Your task to perform on an android device: turn off translation in the chrome app Image 0: 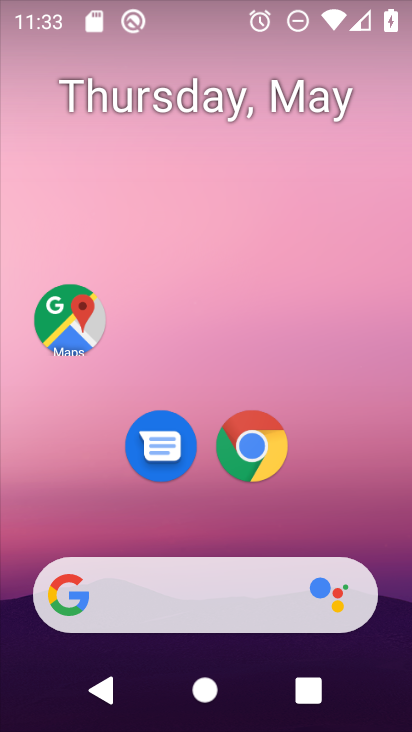
Step 0: drag from (267, 649) to (291, 179)
Your task to perform on an android device: turn off translation in the chrome app Image 1: 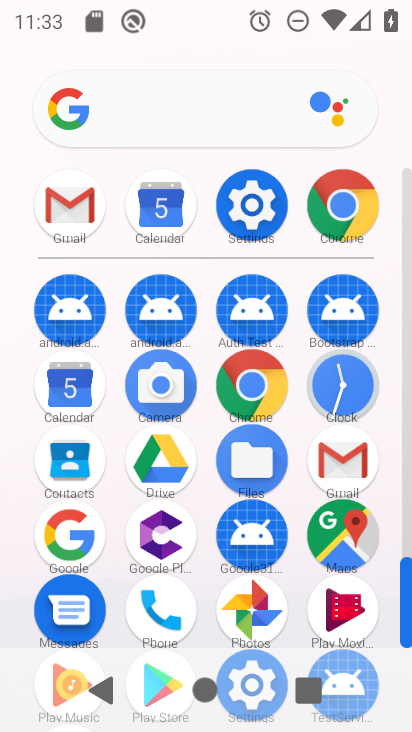
Step 1: click (327, 220)
Your task to perform on an android device: turn off translation in the chrome app Image 2: 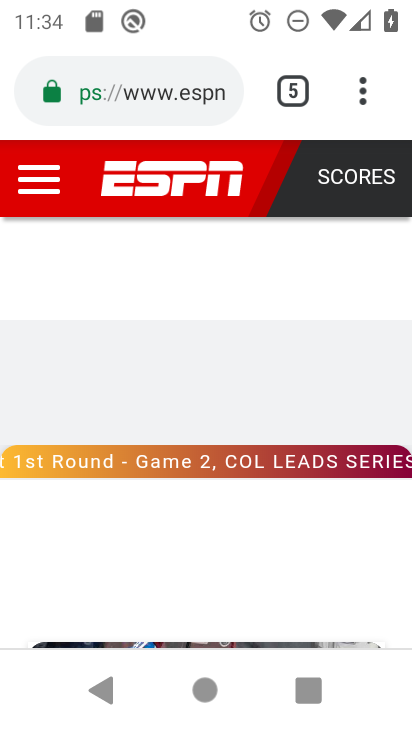
Step 2: click (359, 118)
Your task to perform on an android device: turn off translation in the chrome app Image 3: 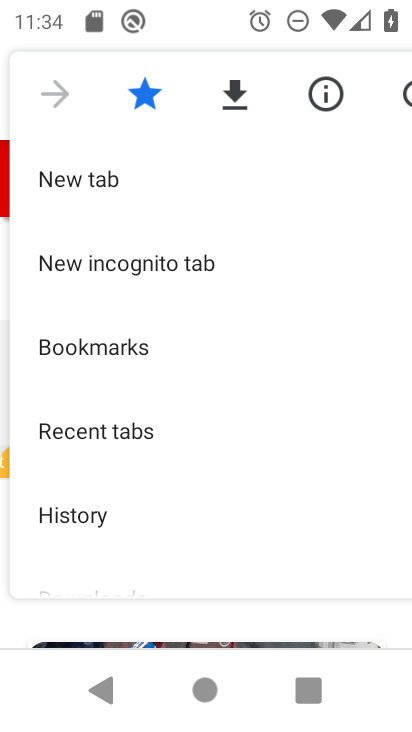
Step 3: drag from (154, 560) to (250, 343)
Your task to perform on an android device: turn off translation in the chrome app Image 4: 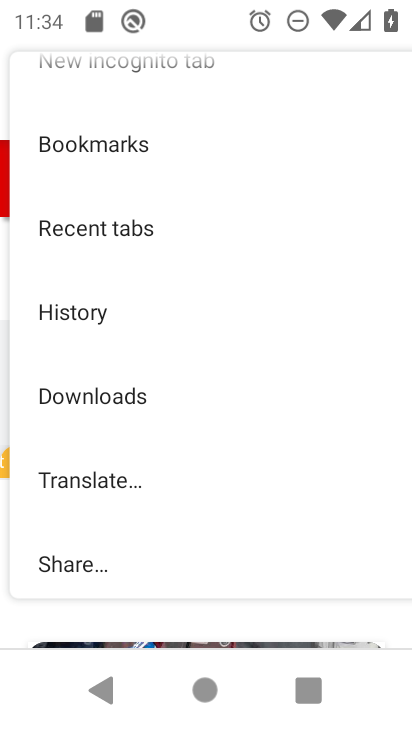
Step 4: drag from (207, 541) to (302, 296)
Your task to perform on an android device: turn off translation in the chrome app Image 5: 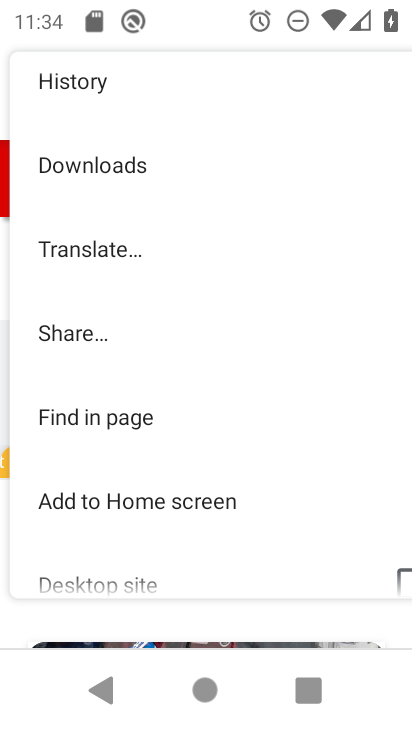
Step 5: drag from (159, 524) to (301, 274)
Your task to perform on an android device: turn off translation in the chrome app Image 6: 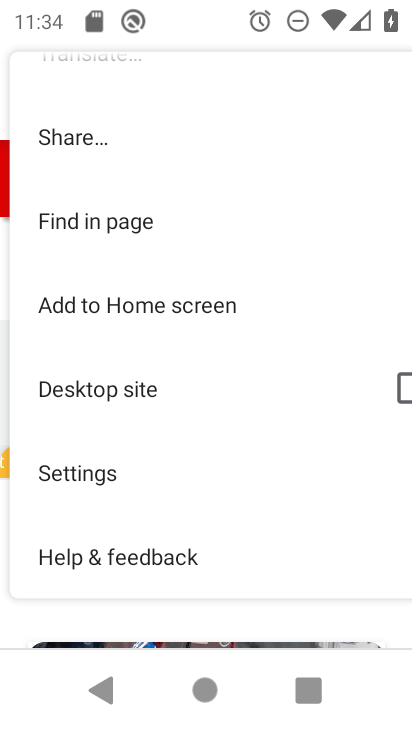
Step 6: click (145, 479)
Your task to perform on an android device: turn off translation in the chrome app Image 7: 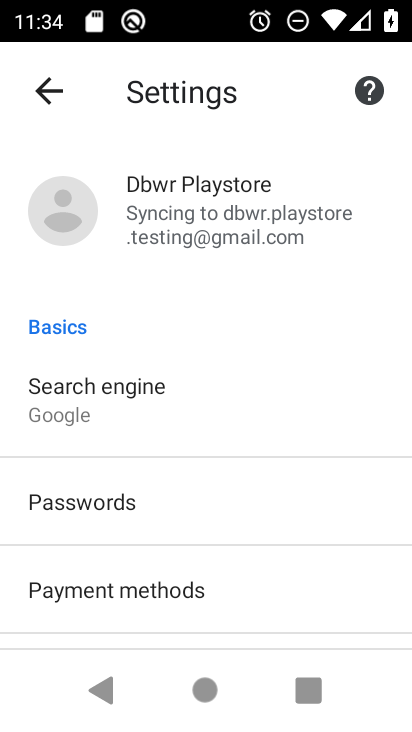
Step 7: drag from (294, 616) to (267, 357)
Your task to perform on an android device: turn off translation in the chrome app Image 8: 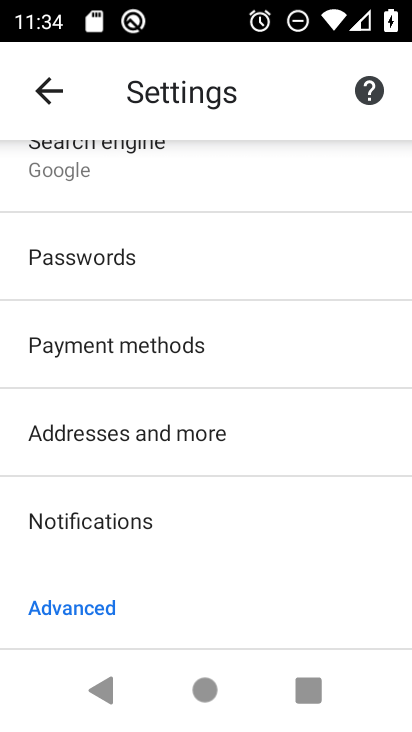
Step 8: drag from (157, 565) to (252, 280)
Your task to perform on an android device: turn off translation in the chrome app Image 9: 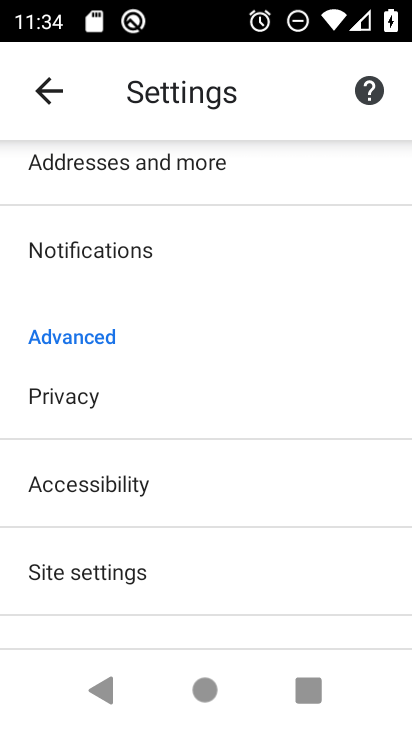
Step 9: drag from (123, 551) to (277, 343)
Your task to perform on an android device: turn off translation in the chrome app Image 10: 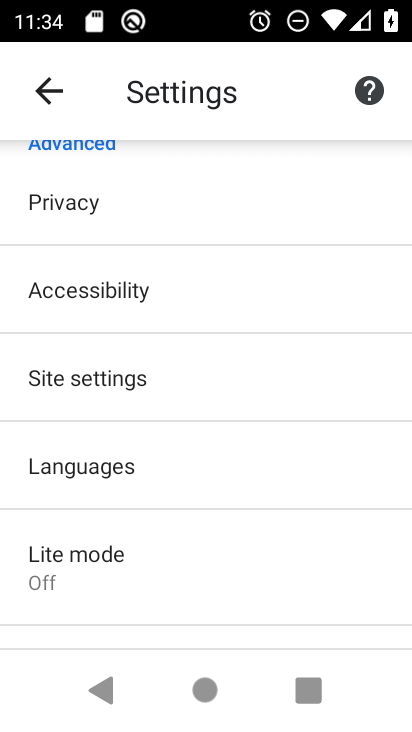
Step 10: drag from (176, 521) to (202, 365)
Your task to perform on an android device: turn off translation in the chrome app Image 11: 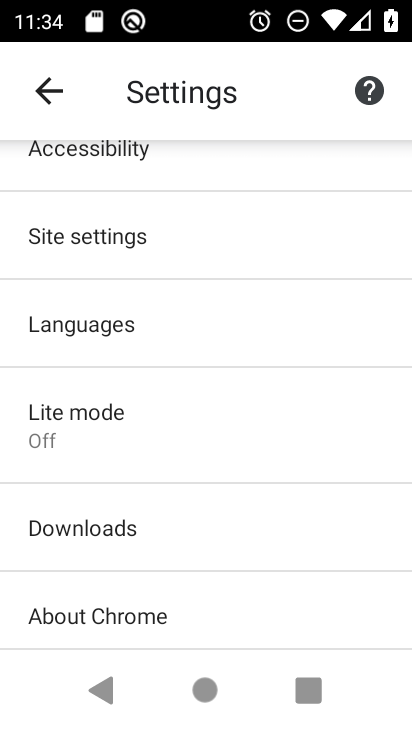
Step 11: click (167, 328)
Your task to perform on an android device: turn off translation in the chrome app Image 12: 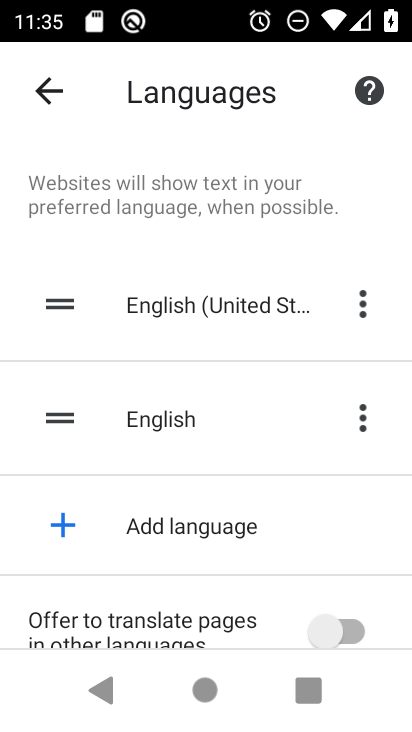
Step 12: click (357, 624)
Your task to perform on an android device: turn off translation in the chrome app Image 13: 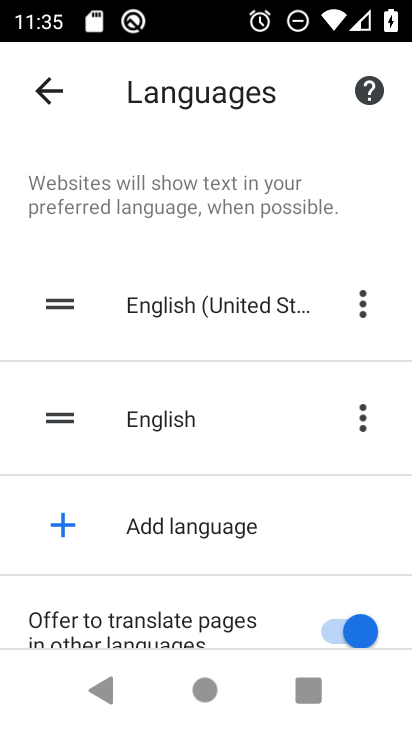
Step 13: click (340, 628)
Your task to perform on an android device: turn off translation in the chrome app Image 14: 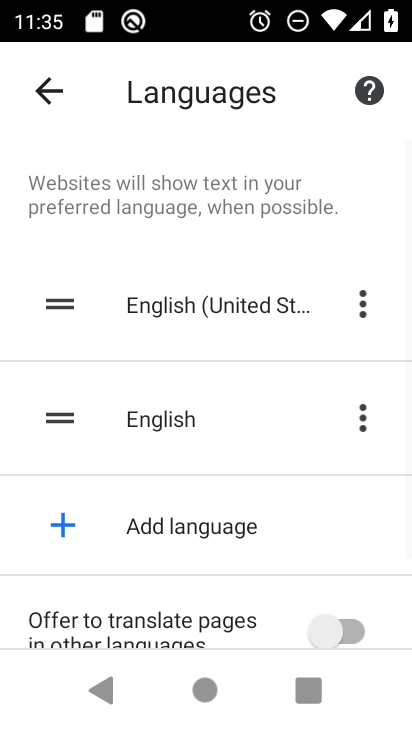
Step 14: task complete